Your task to perform on an android device: toggle wifi Image 0: 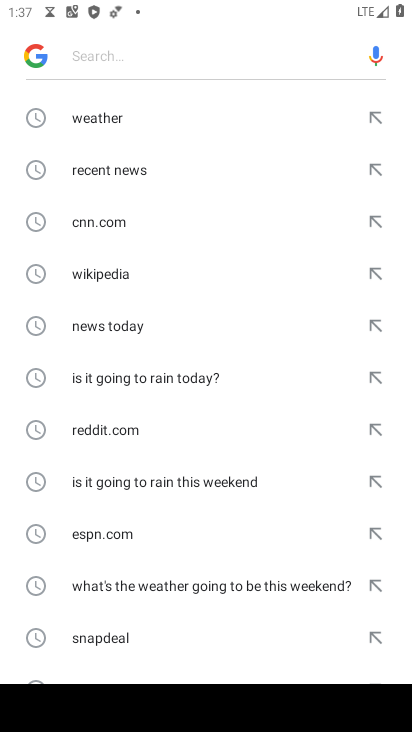
Step 0: drag from (219, 6) to (252, 485)
Your task to perform on an android device: toggle wifi Image 1: 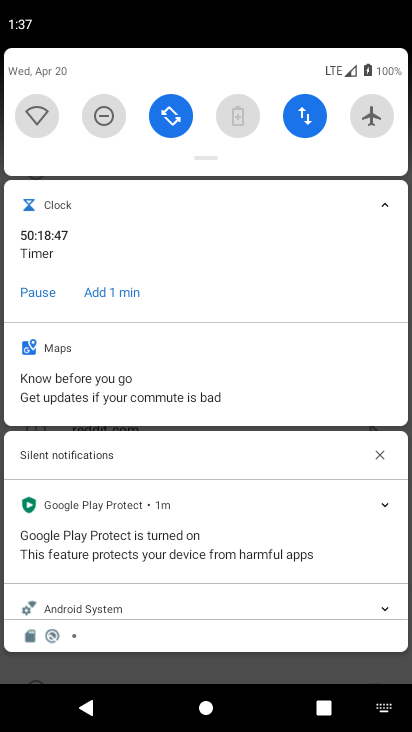
Step 1: click (40, 119)
Your task to perform on an android device: toggle wifi Image 2: 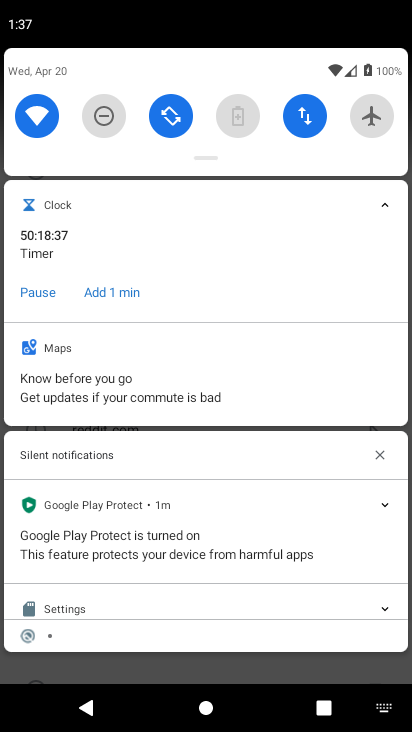
Step 2: task complete